Your task to perform on an android device: search for starred emails in the gmail app Image 0: 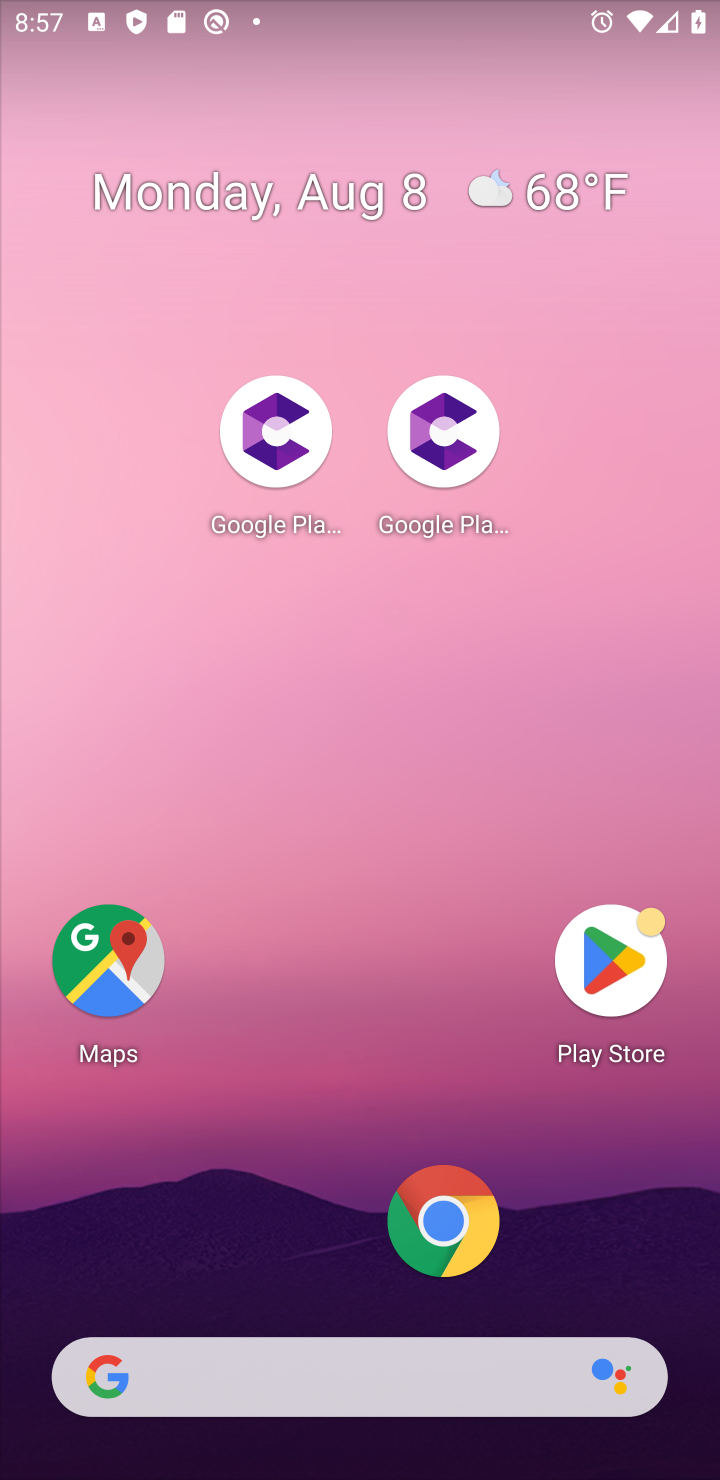
Step 0: drag from (240, 1261) to (332, 462)
Your task to perform on an android device: search for starred emails in the gmail app Image 1: 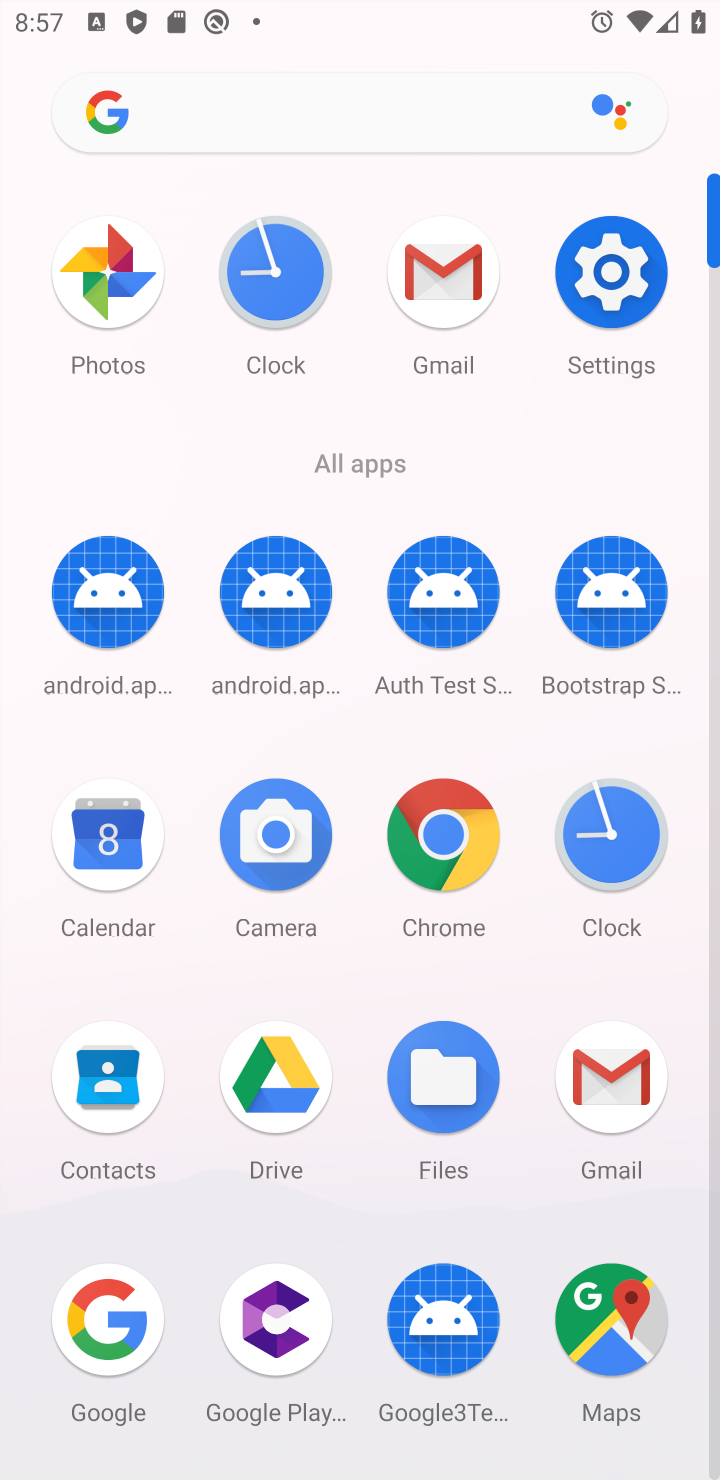
Step 1: click (429, 275)
Your task to perform on an android device: search for starred emails in the gmail app Image 2: 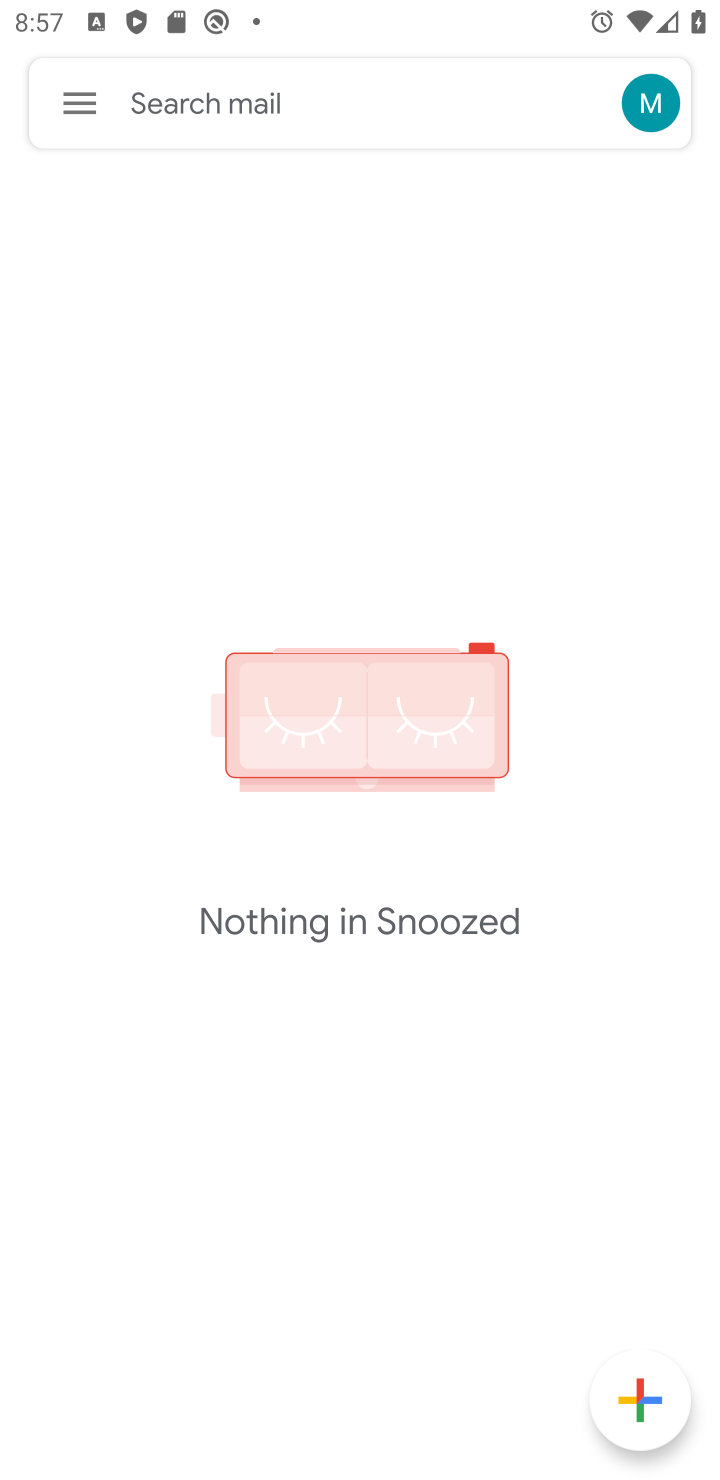
Step 2: click (77, 117)
Your task to perform on an android device: search for starred emails in the gmail app Image 3: 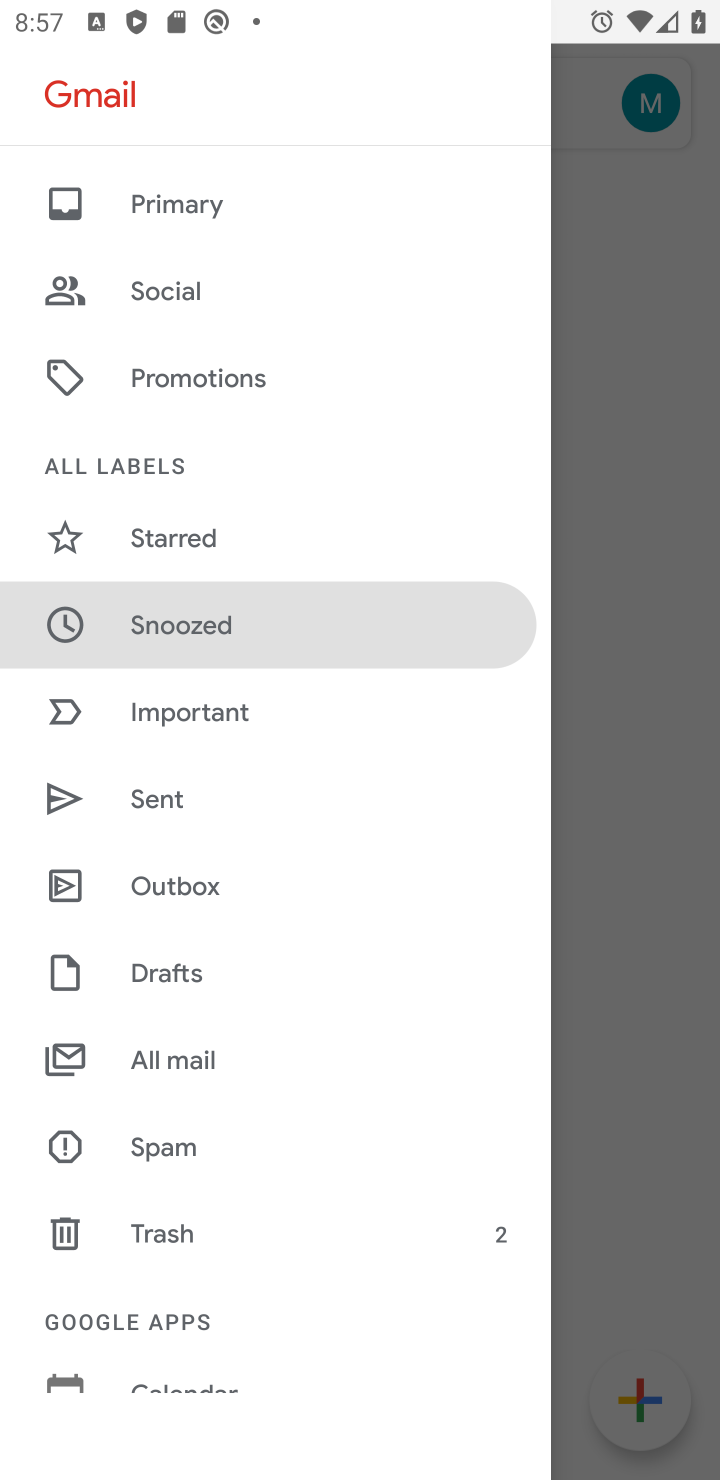
Step 3: click (230, 540)
Your task to perform on an android device: search for starred emails in the gmail app Image 4: 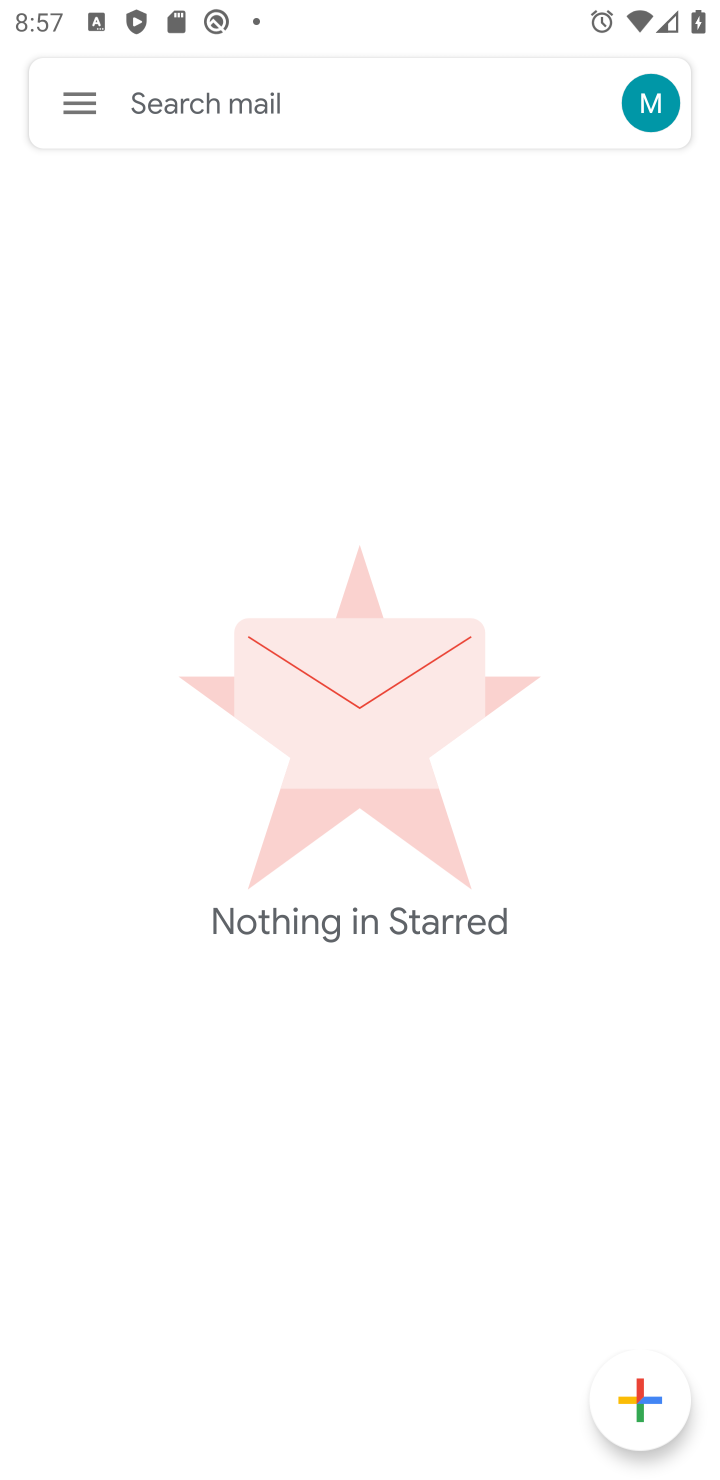
Step 4: task complete